Your task to perform on an android device: Add "logitech g502" to the cart on walmart, then select checkout. Image 0: 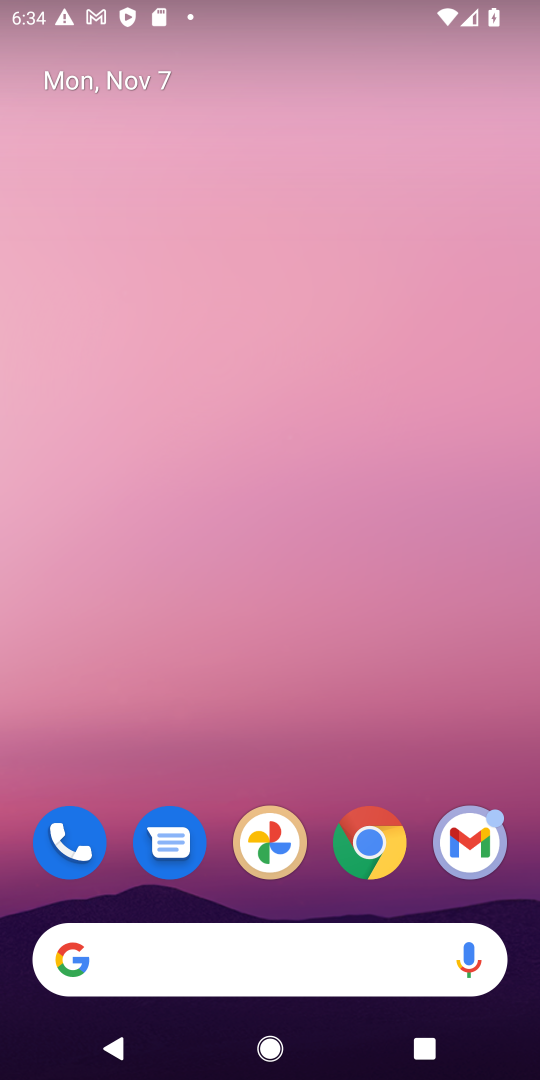
Step 0: drag from (160, 683) to (112, 174)
Your task to perform on an android device: Add "logitech g502" to the cart on walmart, then select checkout. Image 1: 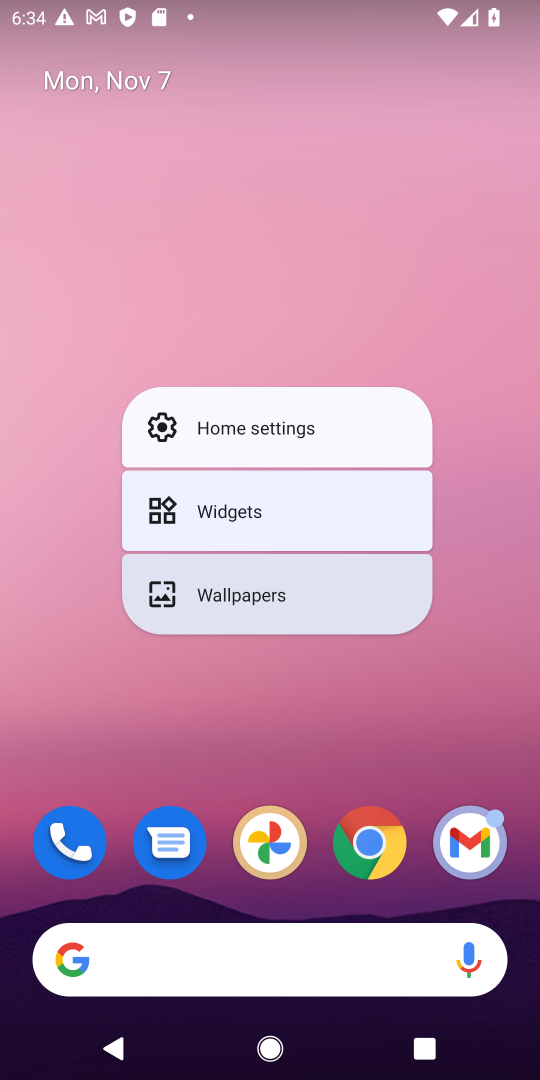
Step 1: click (356, 715)
Your task to perform on an android device: Add "logitech g502" to the cart on walmart, then select checkout. Image 2: 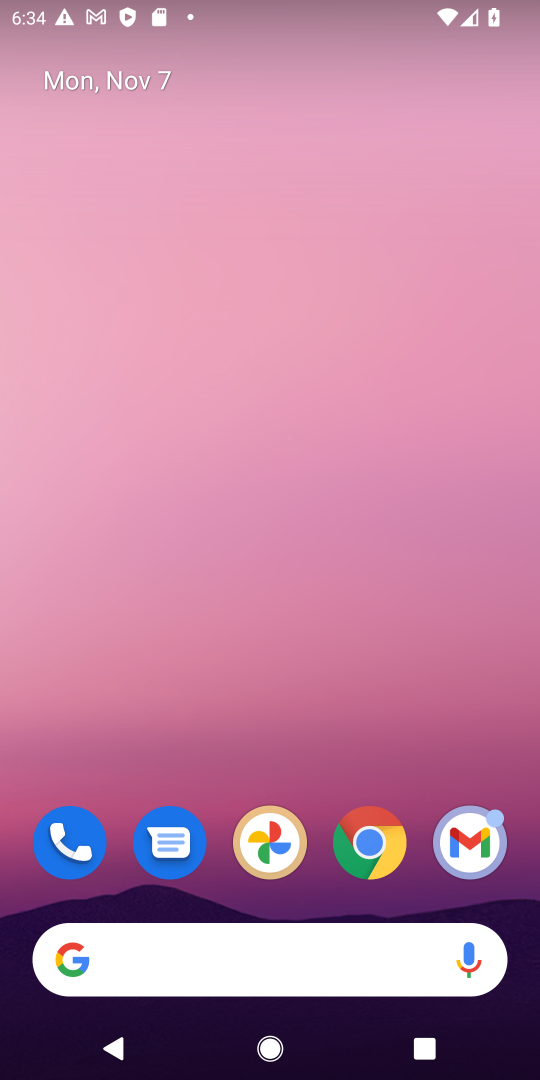
Step 2: drag from (330, 915) to (423, 137)
Your task to perform on an android device: Add "logitech g502" to the cart on walmart, then select checkout. Image 3: 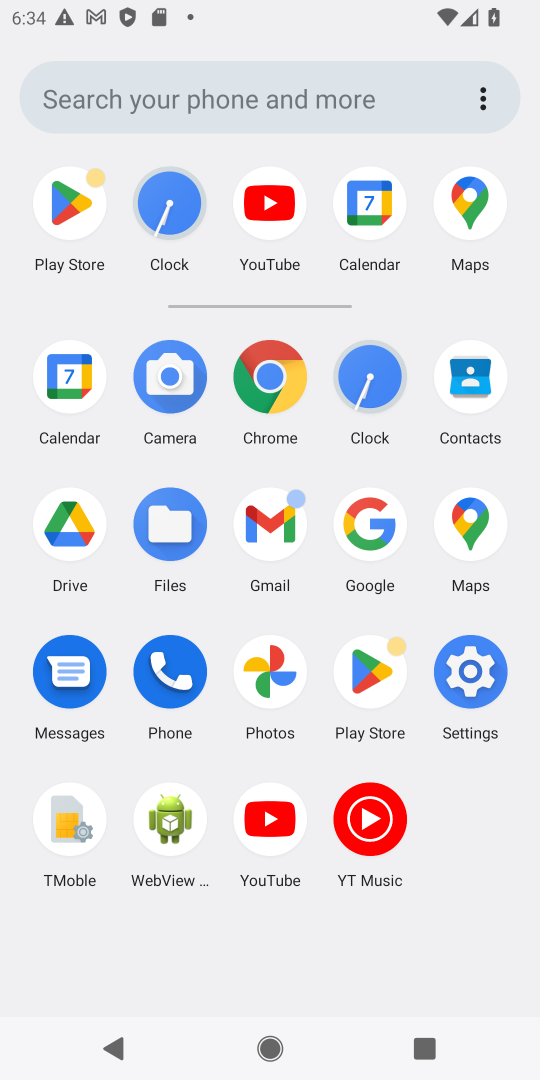
Step 3: click (277, 386)
Your task to perform on an android device: Add "logitech g502" to the cart on walmart, then select checkout. Image 4: 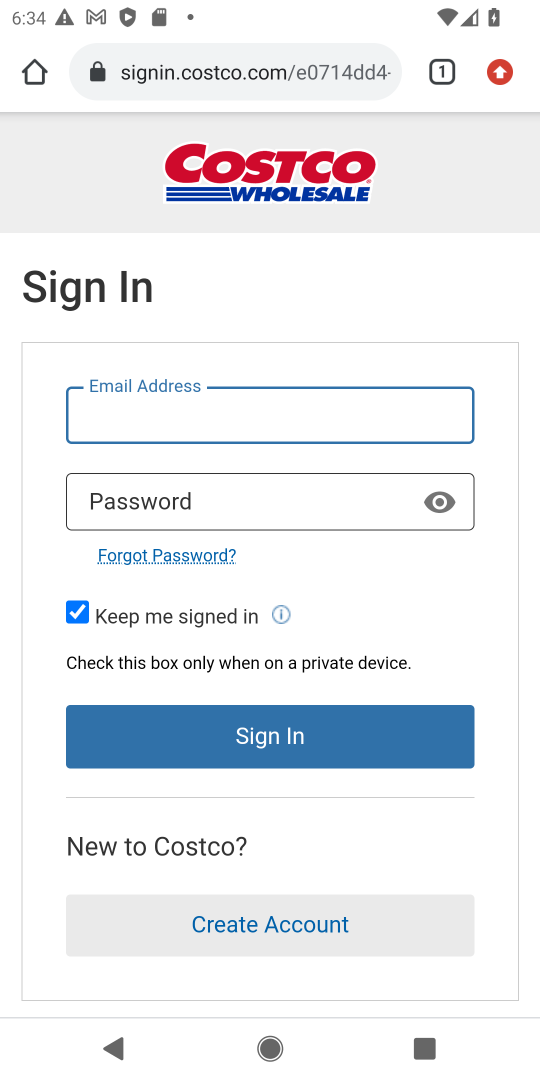
Step 4: click (295, 80)
Your task to perform on an android device: Add "logitech g502" to the cart on walmart, then select checkout. Image 5: 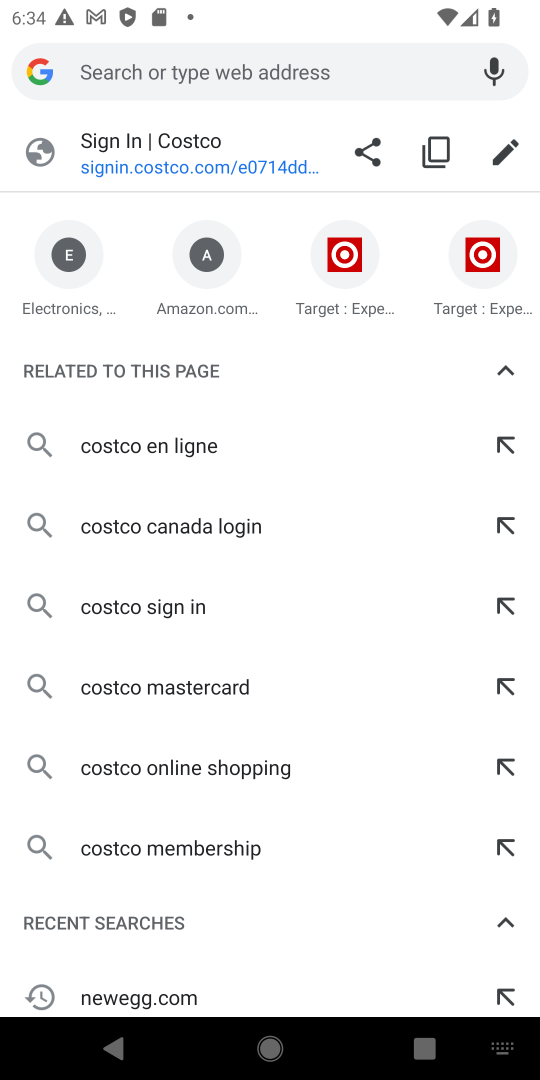
Step 5: type "walmart"
Your task to perform on an android device: Add "logitech g502" to the cart on walmart, then select checkout. Image 6: 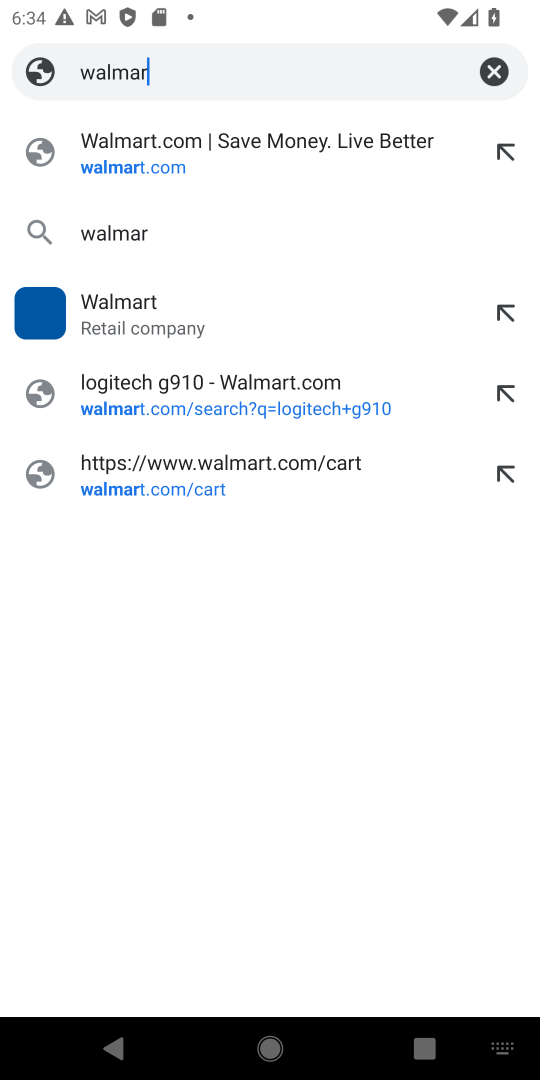
Step 6: press enter
Your task to perform on an android device: Add "logitech g502" to the cart on walmart, then select checkout. Image 7: 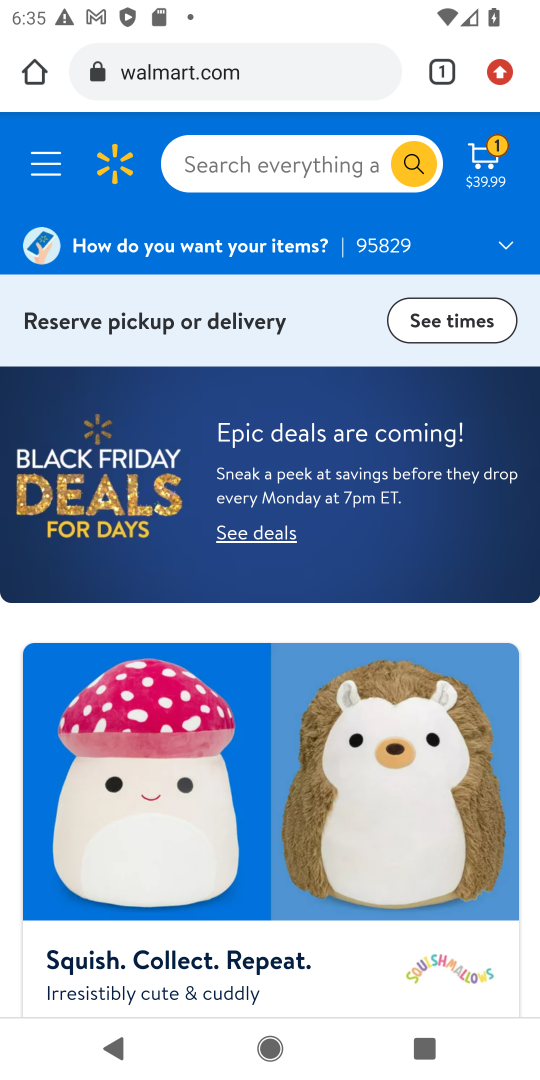
Step 7: click (319, 176)
Your task to perform on an android device: Add "logitech g502" to the cart on walmart, then select checkout. Image 8: 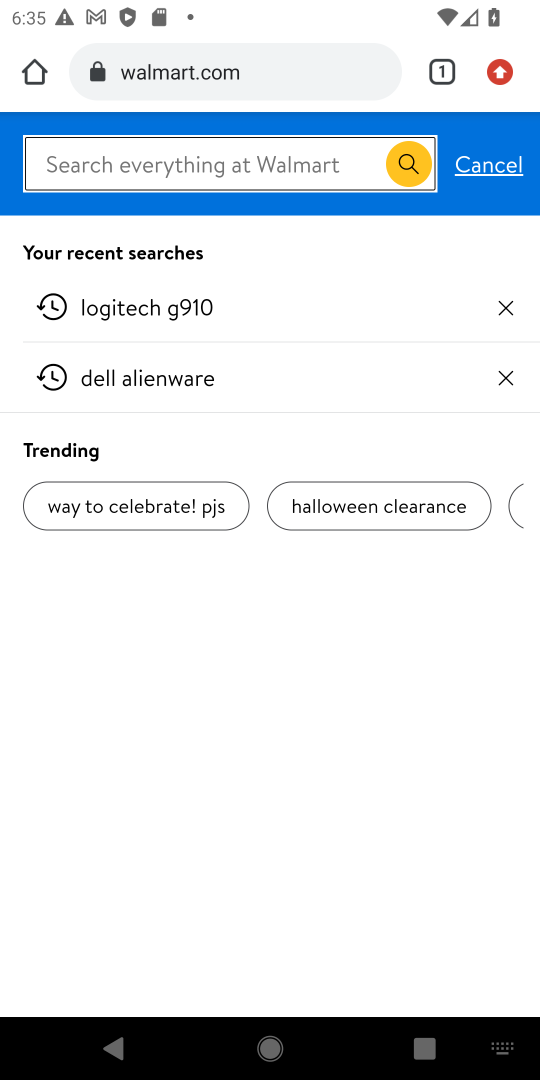
Step 8: type "logitech g502"
Your task to perform on an android device: Add "logitech g502" to the cart on walmart, then select checkout. Image 9: 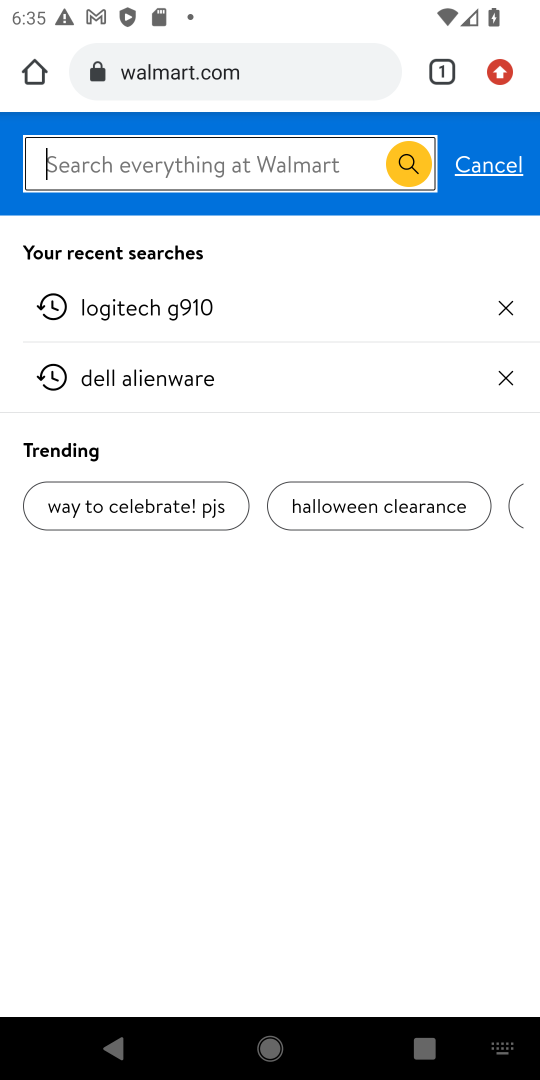
Step 9: press enter
Your task to perform on an android device: Add "logitech g502" to the cart on walmart, then select checkout. Image 10: 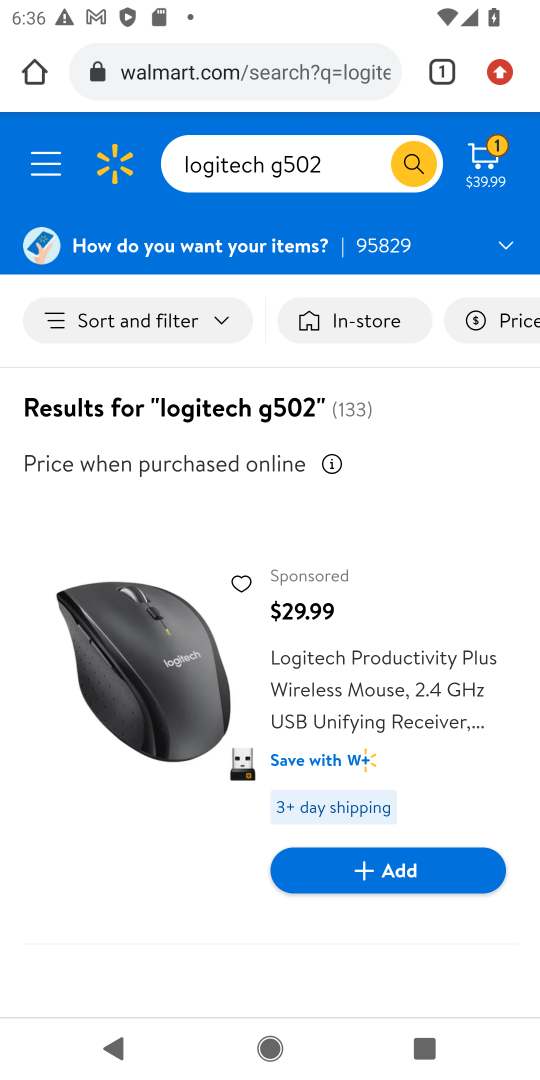
Step 10: click (373, 872)
Your task to perform on an android device: Add "logitech g502" to the cart on walmart, then select checkout. Image 11: 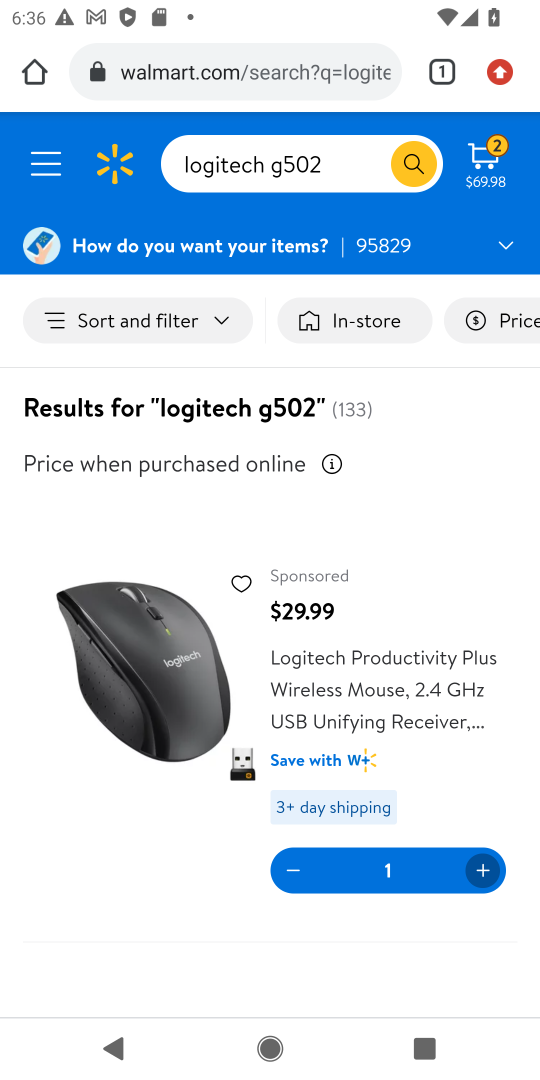
Step 11: click (481, 171)
Your task to perform on an android device: Add "logitech g502" to the cart on walmart, then select checkout. Image 12: 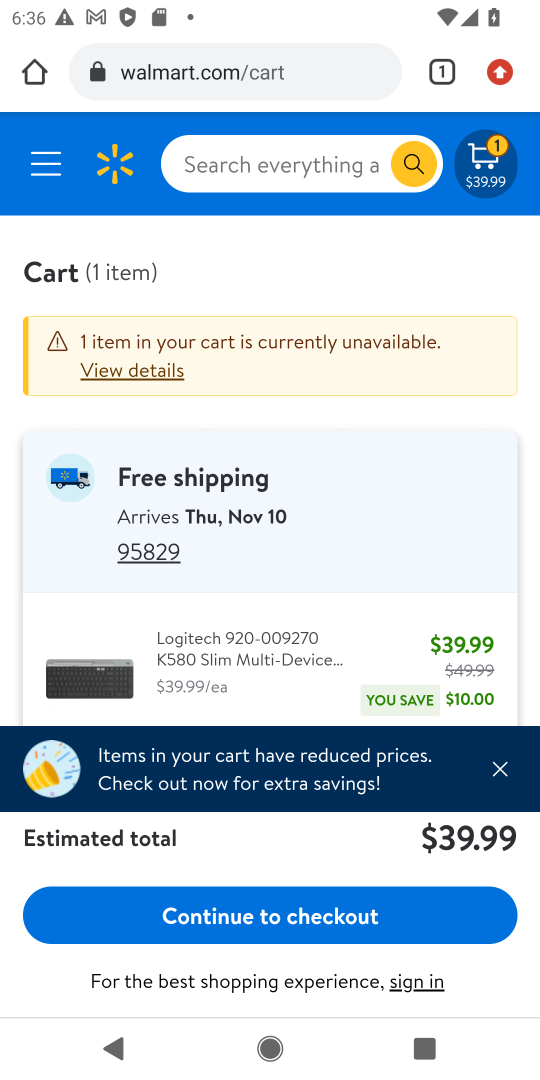
Step 12: click (192, 940)
Your task to perform on an android device: Add "logitech g502" to the cart on walmart, then select checkout. Image 13: 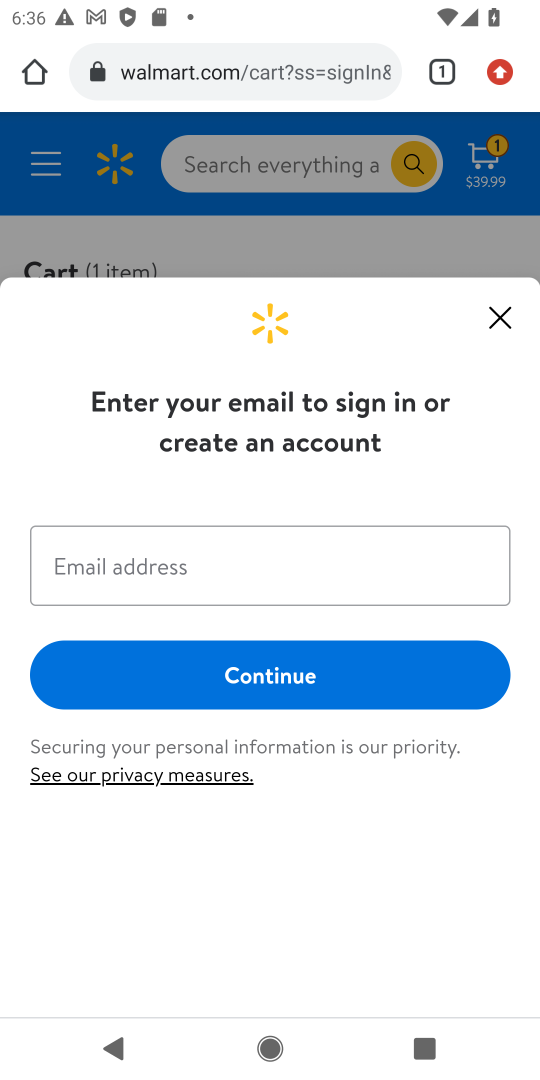
Step 13: task complete